Your task to perform on an android device: turn off wifi Image 0: 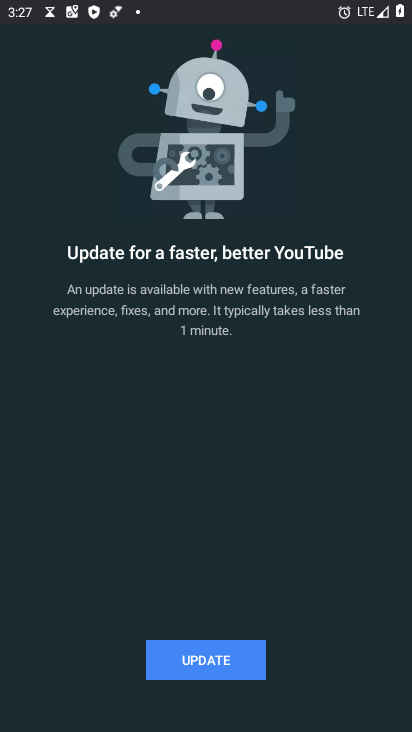
Step 0: press home button
Your task to perform on an android device: turn off wifi Image 1: 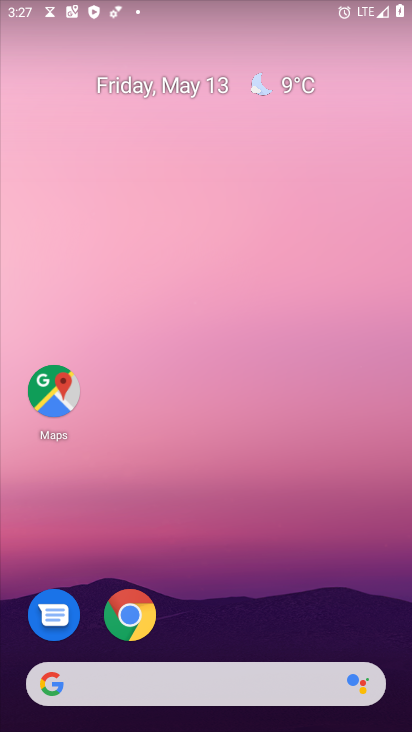
Step 1: drag from (219, 673) to (219, 132)
Your task to perform on an android device: turn off wifi Image 2: 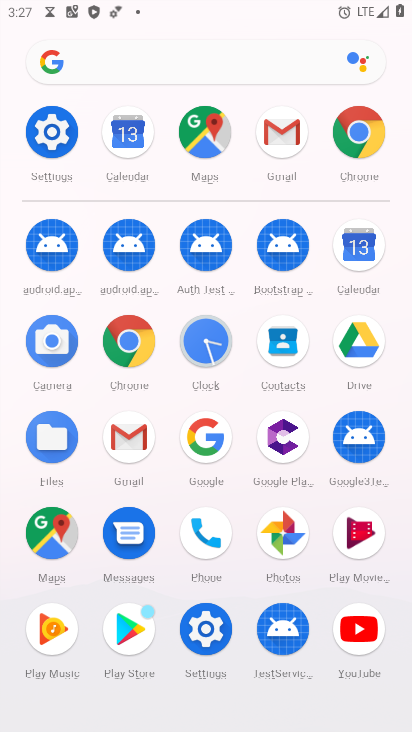
Step 2: click (50, 140)
Your task to perform on an android device: turn off wifi Image 3: 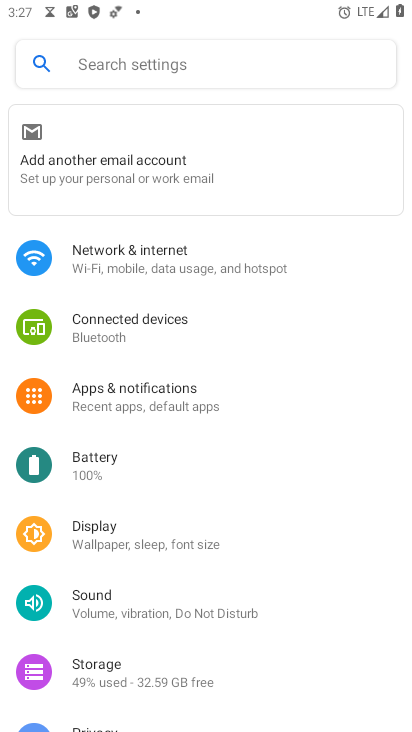
Step 3: click (120, 249)
Your task to perform on an android device: turn off wifi Image 4: 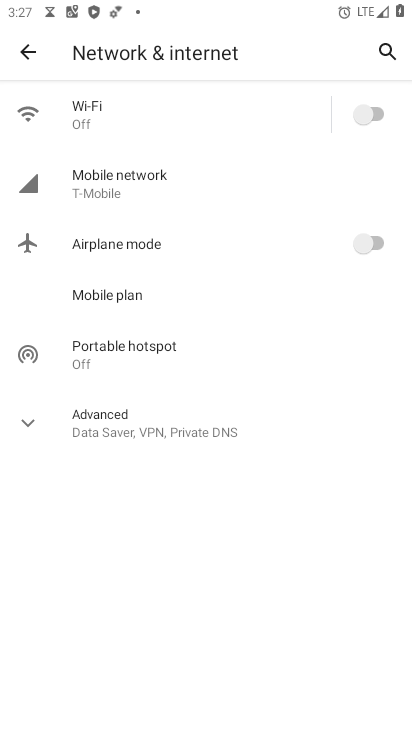
Step 4: task complete